Your task to perform on an android device: Show me the alarms in the clock app Image 0: 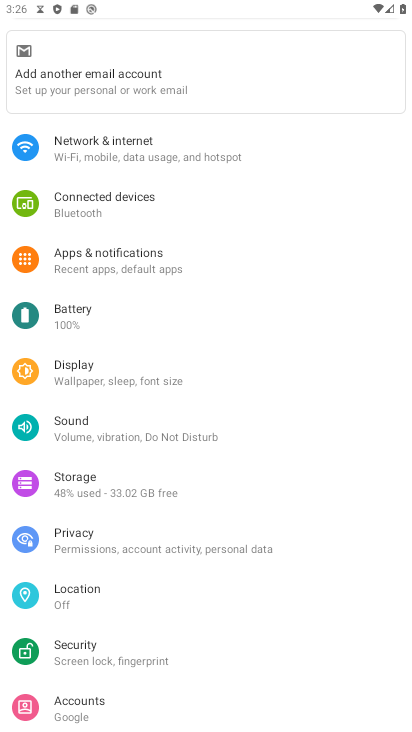
Step 0: press home button
Your task to perform on an android device: Show me the alarms in the clock app Image 1: 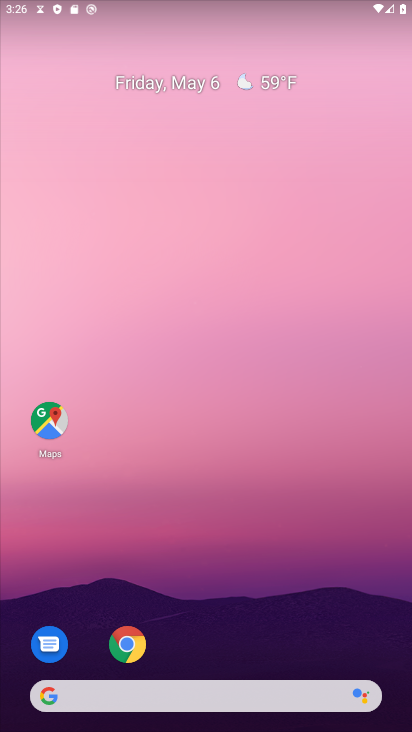
Step 1: drag from (213, 498) to (221, 30)
Your task to perform on an android device: Show me the alarms in the clock app Image 2: 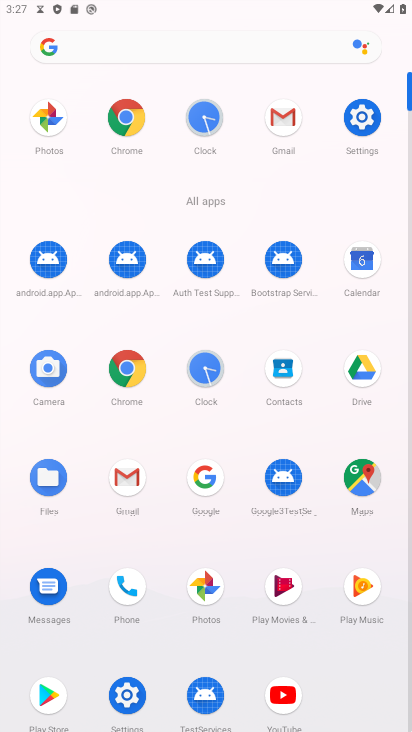
Step 2: click (207, 368)
Your task to perform on an android device: Show me the alarms in the clock app Image 3: 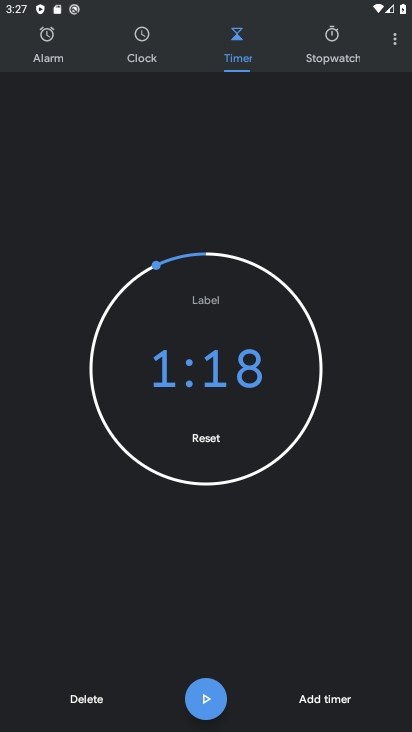
Step 3: click (53, 44)
Your task to perform on an android device: Show me the alarms in the clock app Image 4: 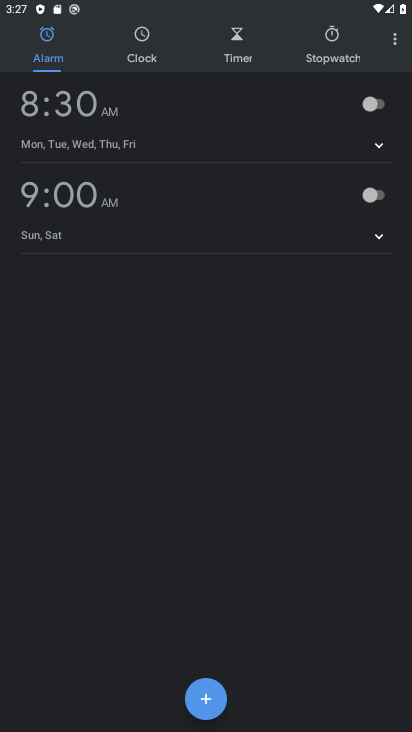
Step 4: task complete